Your task to perform on an android device: turn off translation in the chrome app Image 0: 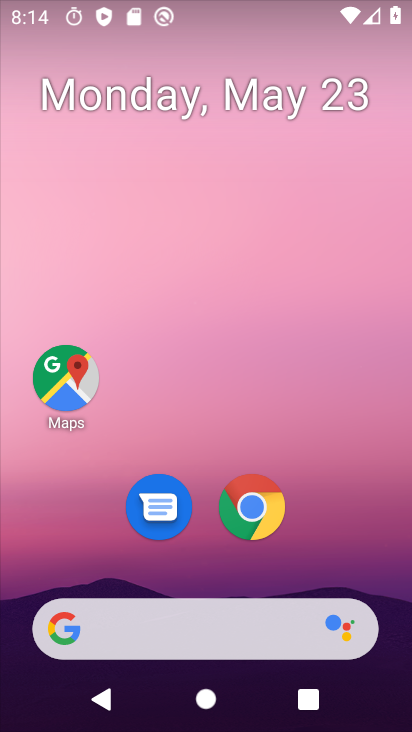
Step 0: drag from (321, 499) to (301, 54)
Your task to perform on an android device: turn off translation in the chrome app Image 1: 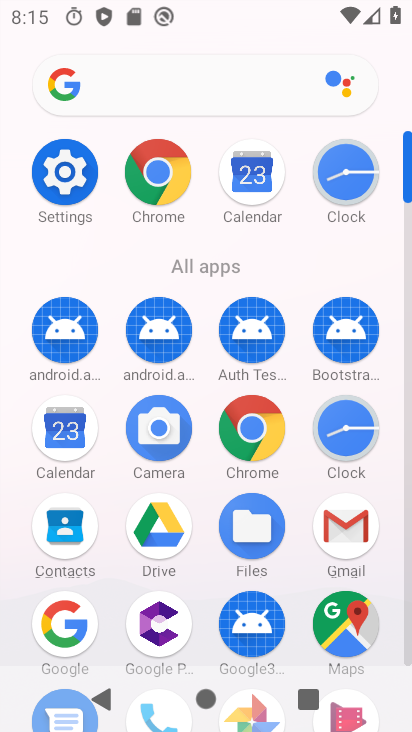
Step 1: click (142, 187)
Your task to perform on an android device: turn off translation in the chrome app Image 2: 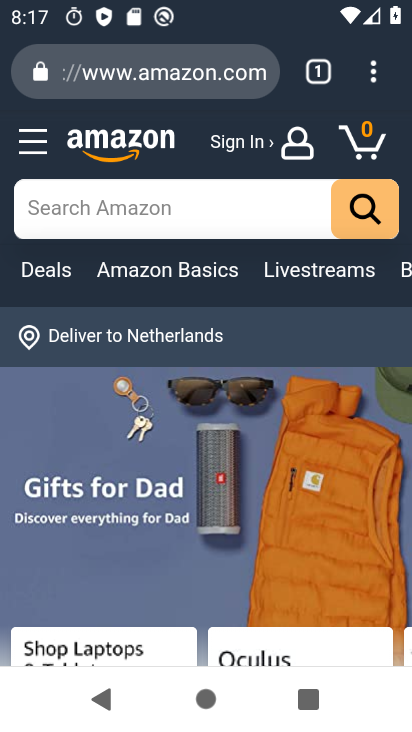
Step 2: task complete